Your task to perform on an android device: create a new album in the google photos Image 0: 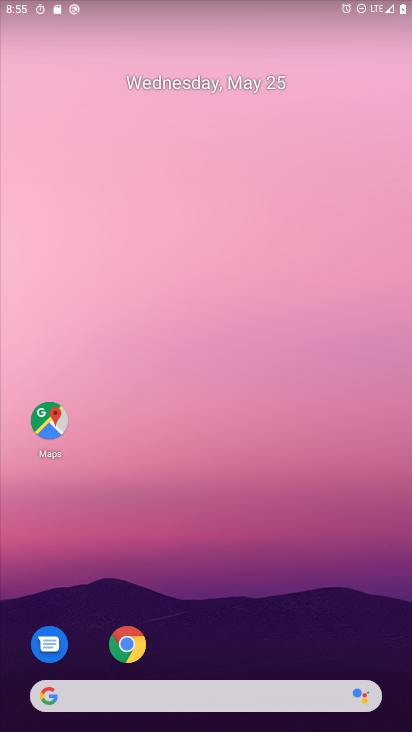
Step 0: drag from (292, 647) to (342, 0)
Your task to perform on an android device: create a new album in the google photos Image 1: 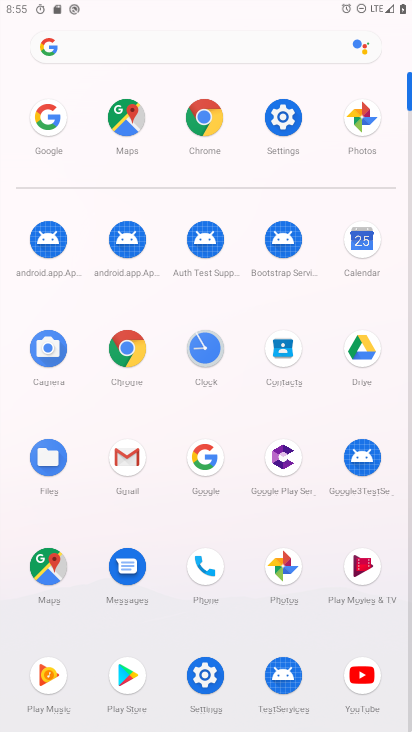
Step 1: click (277, 578)
Your task to perform on an android device: create a new album in the google photos Image 2: 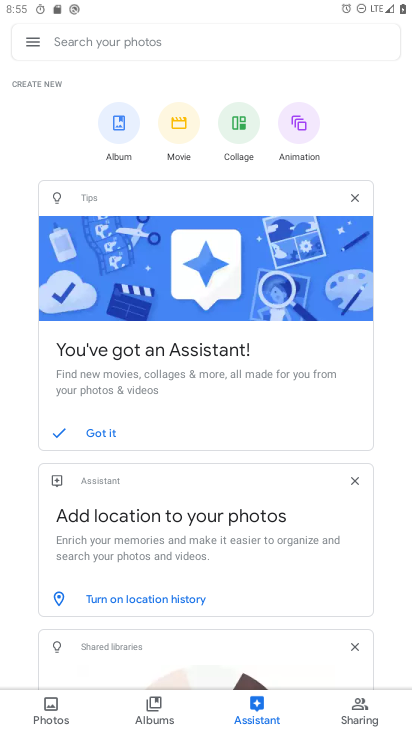
Step 2: click (57, 713)
Your task to perform on an android device: create a new album in the google photos Image 3: 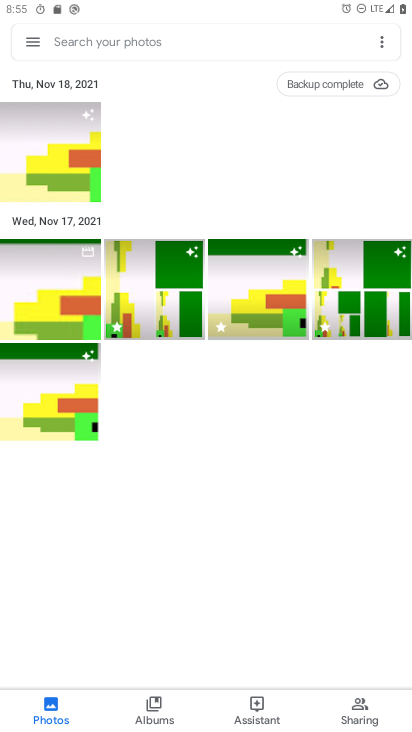
Step 3: click (72, 142)
Your task to perform on an android device: create a new album in the google photos Image 4: 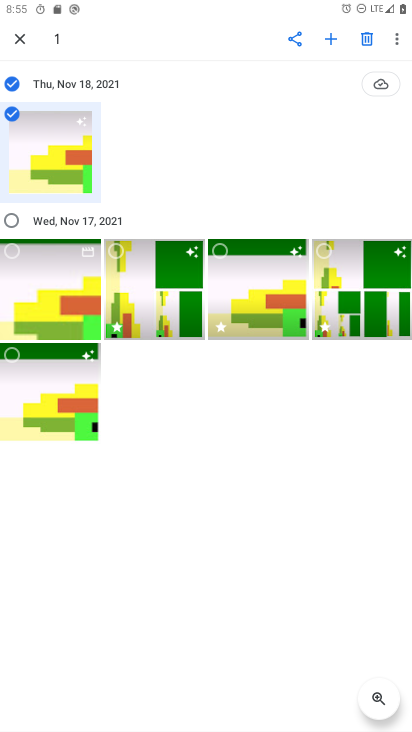
Step 4: click (329, 38)
Your task to perform on an android device: create a new album in the google photos Image 5: 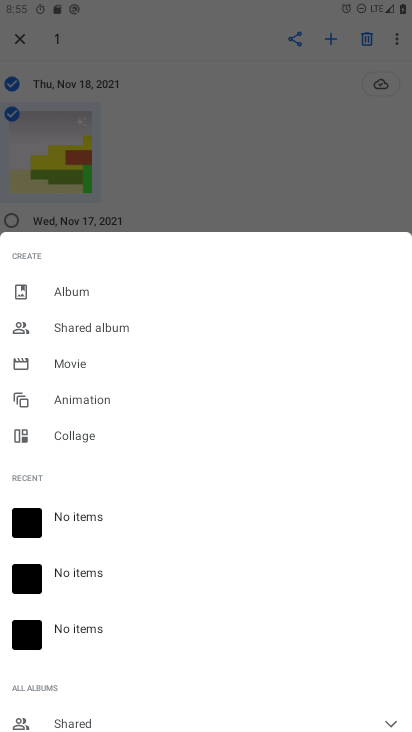
Step 5: click (89, 296)
Your task to perform on an android device: create a new album in the google photos Image 6: 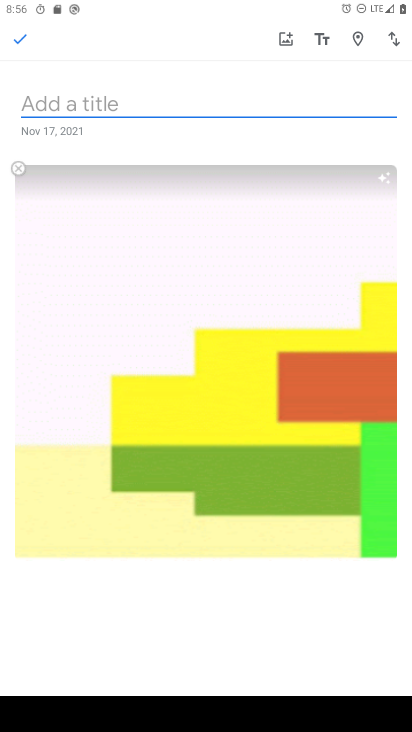
Step 6: type "KS"
Your task to perform on an android device: create a new album in the google photos Image 7: 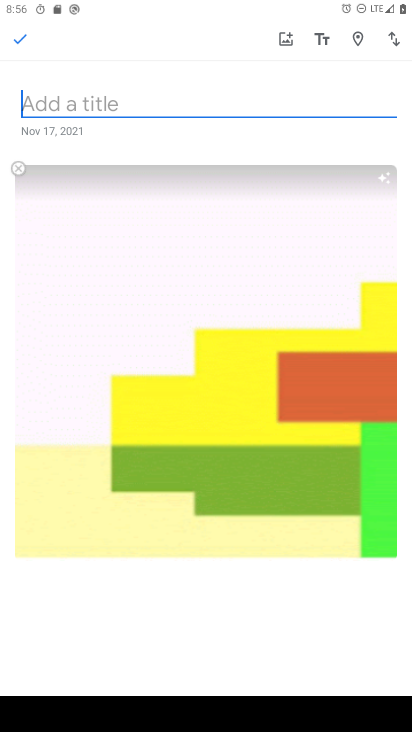
Step 7: click (23, 43)
Your task to perform on an android device: create a new album in the google photos Image 8: 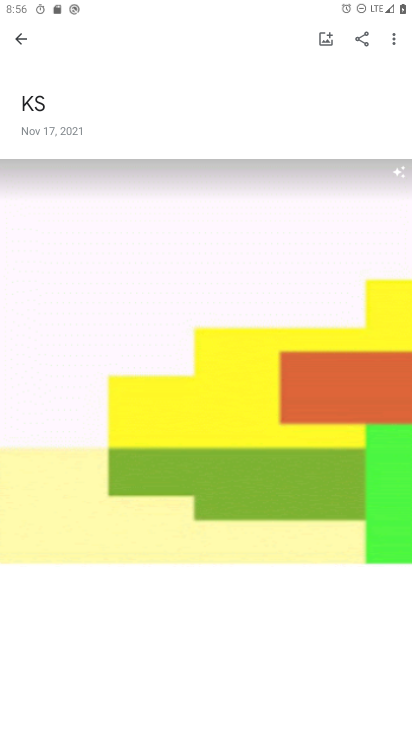
Step 8: task complete